Your task to perform on an android device: turn off improve location accuracy Image 0: 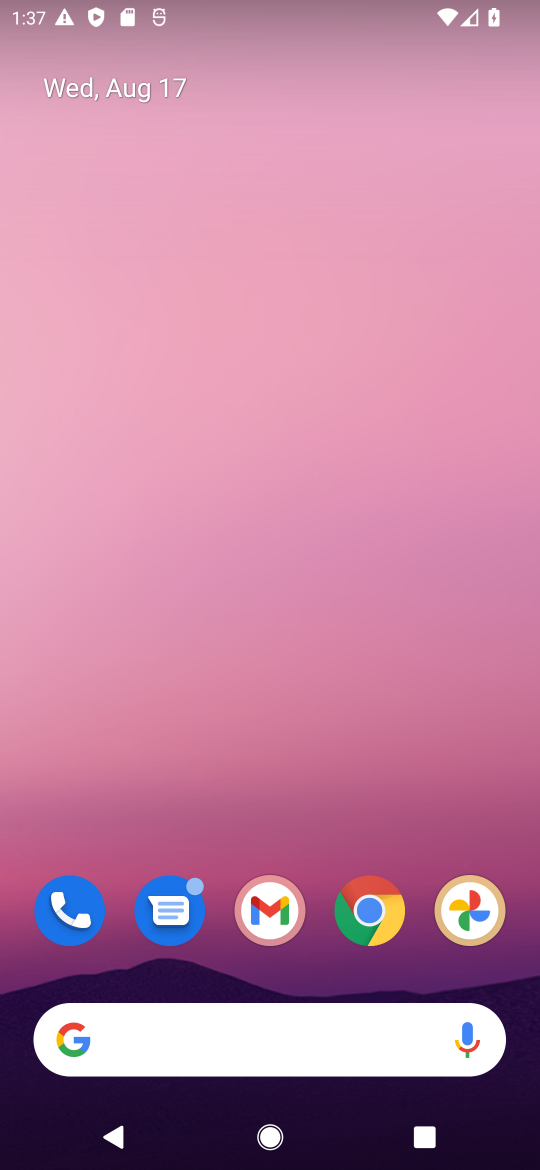
Step 0: drag from (274, 892) to (383, 24)
Your task to perform on an android device: turn off improve location accuracy Image 1: 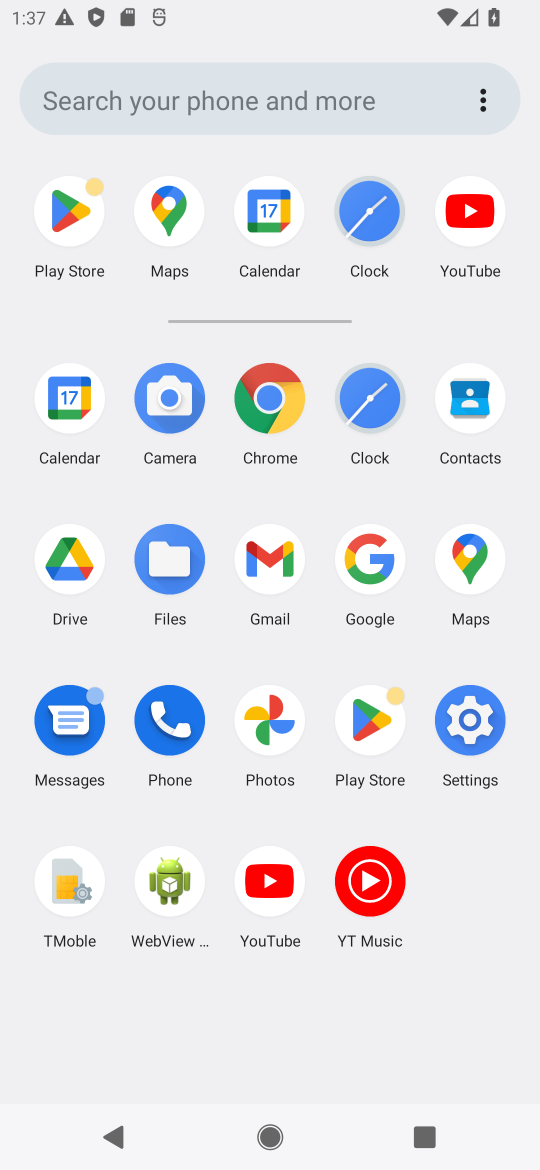
Step 1: click (474, 736)
Your task to perform on an android device: turn off improve location accuracy Image 2: 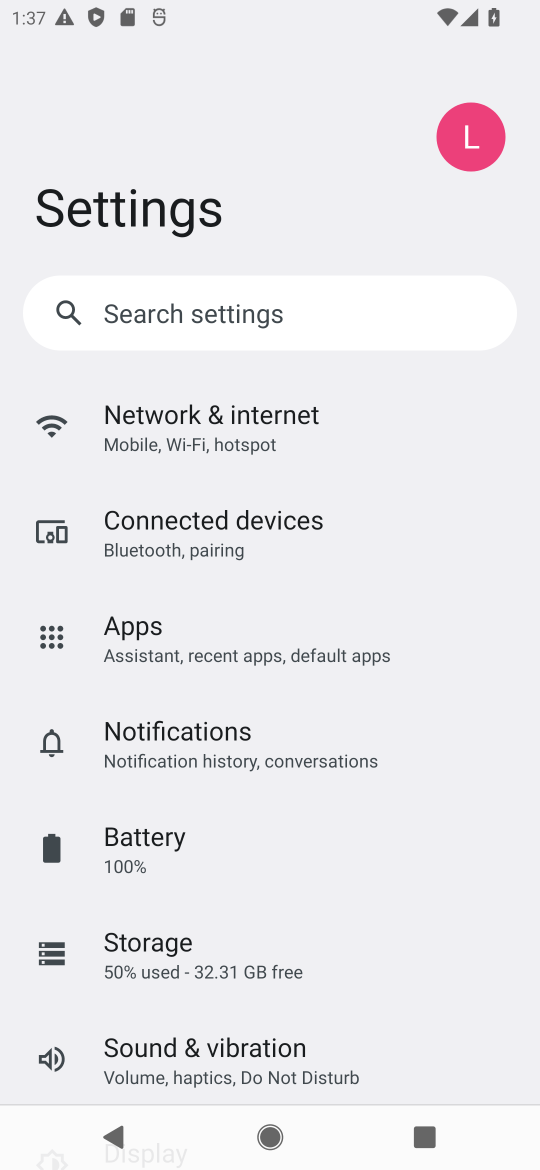
Step 2: drag from (221, 1049) to (382, 246)
Your task to perform on an android device: turn off improve location accuracy Image 3: 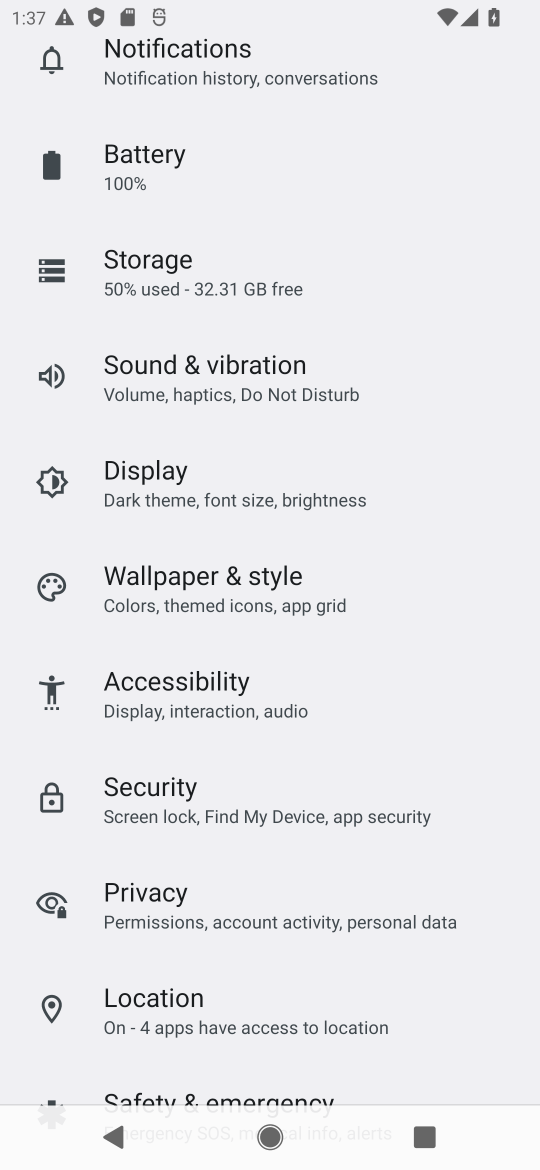
Step 3: click (161, 998)
Your task to perform on an android device: turn off improve location accuracy Image 4: 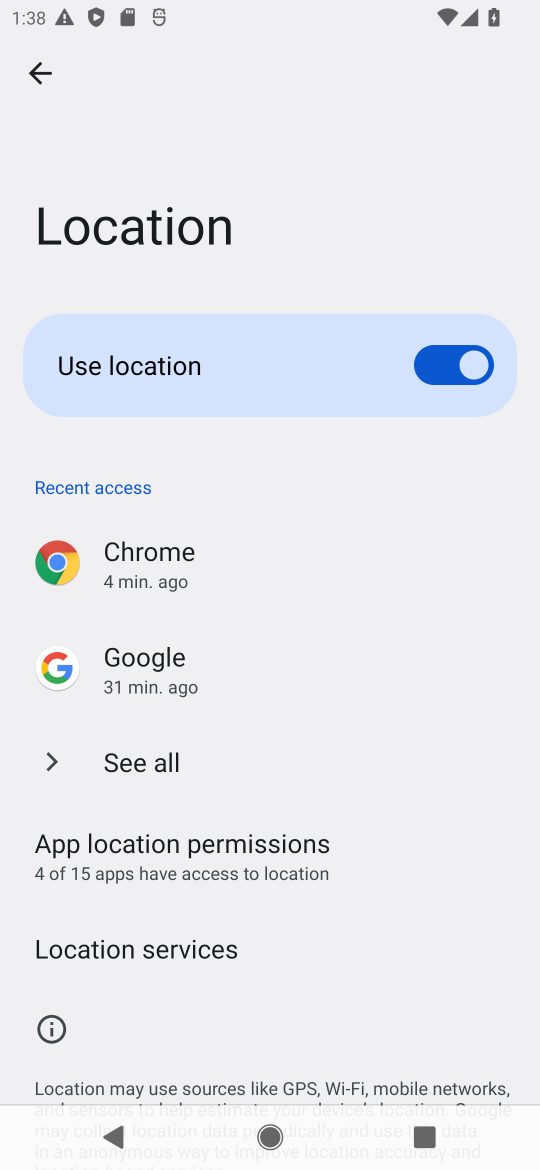
Step 4: drag from (153, 1017) to (332, 122)
Your task to perform on an android device: turn off improve location accuracy Image 5: 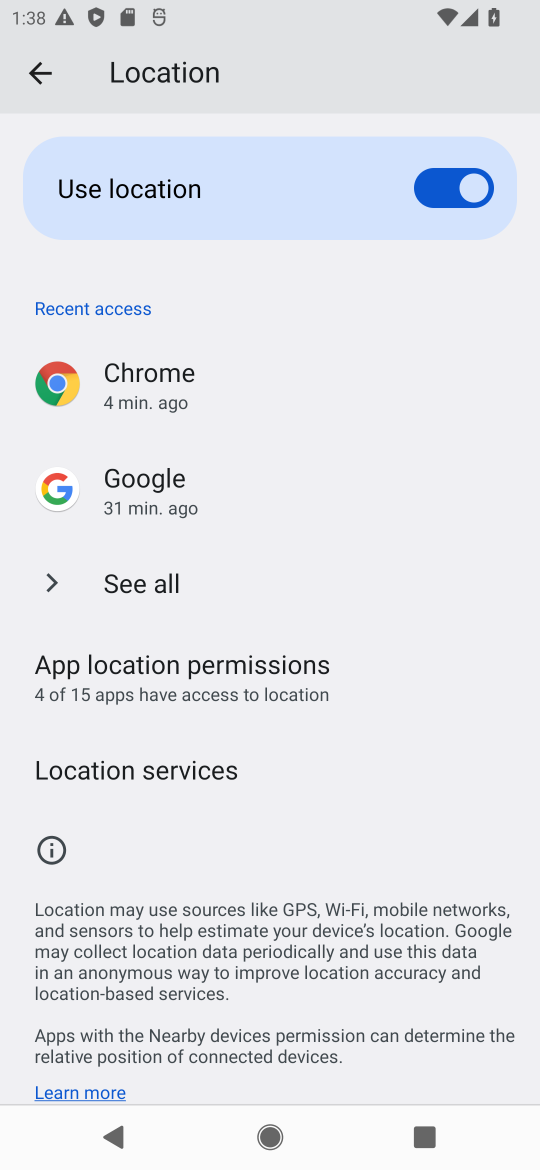
Step 5: click (150, 775)
Your task to perform on an android device: turn off improve location accuracy Image 6: 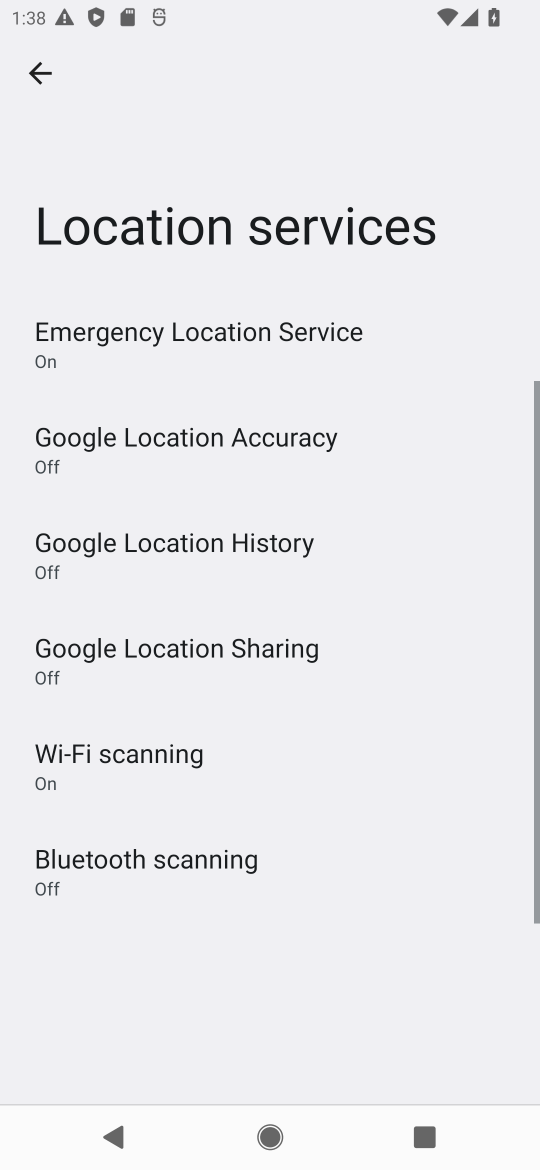
Step 6: click (223, 445)
Your task to perform on an android device: turn off improve location accuracy Image 7: 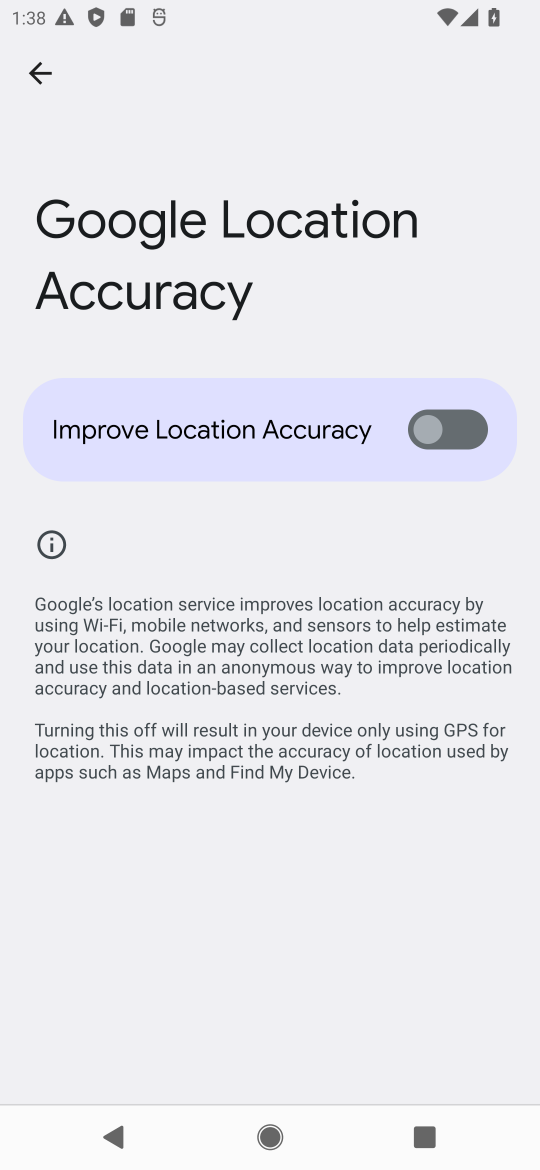
Step 7: task complete